Your task to perform on an android device: turn notification dots on Image 0: 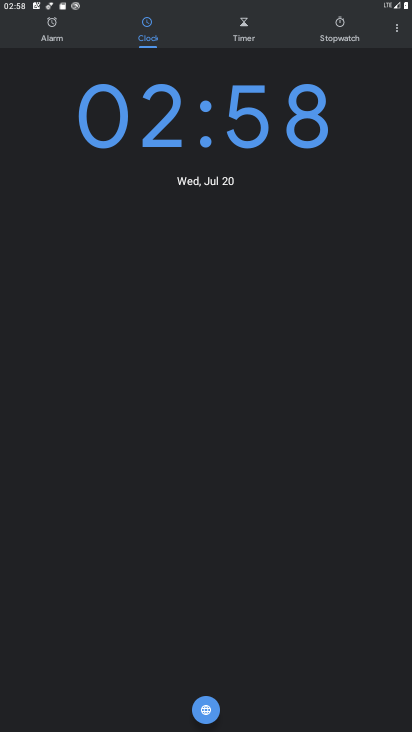
Step 0: press home button
Your task to perform on an android device: turn notification dots on Image 1: 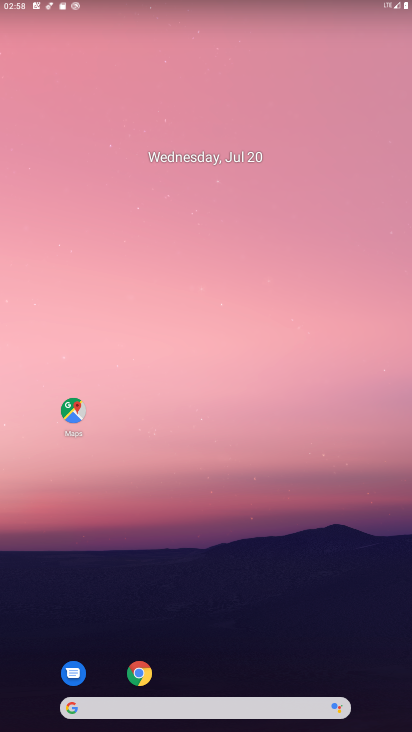
Step 1: drag from (228, 617) to (123, 1)
Your task to perform on an android device: turn notification dots on Image 2: 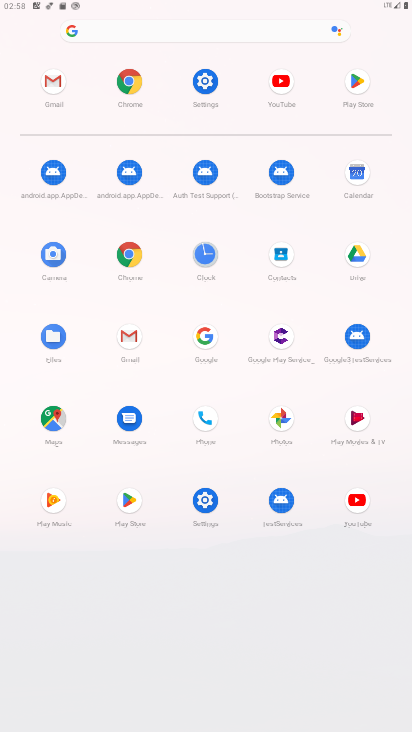
Step 2: click (203, 505)
Your task to perform on an android device: turn notification dots on Image 3: 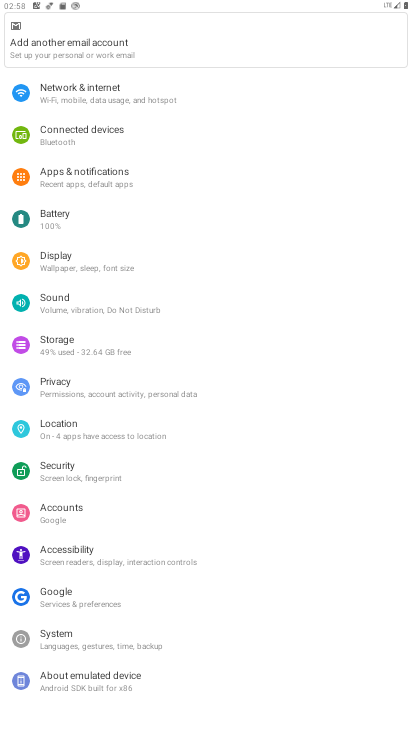
Step 3: click (128, 171)
Your task to perform on an android device: turn notification dots on Image 4: 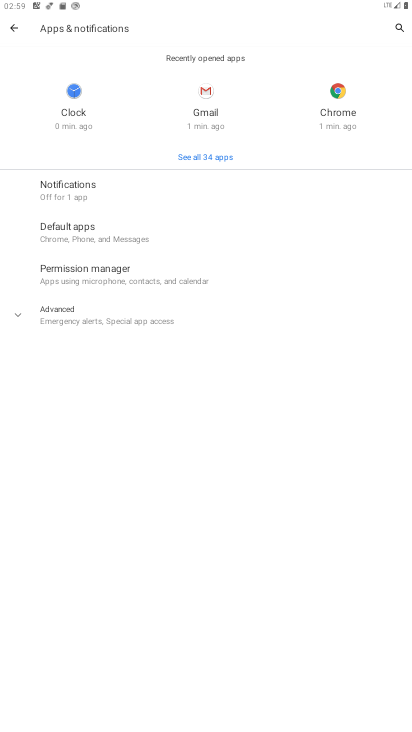
Step 4: click (78, 199)
Your task to perform on an android device: turn notification dots on Image 5: 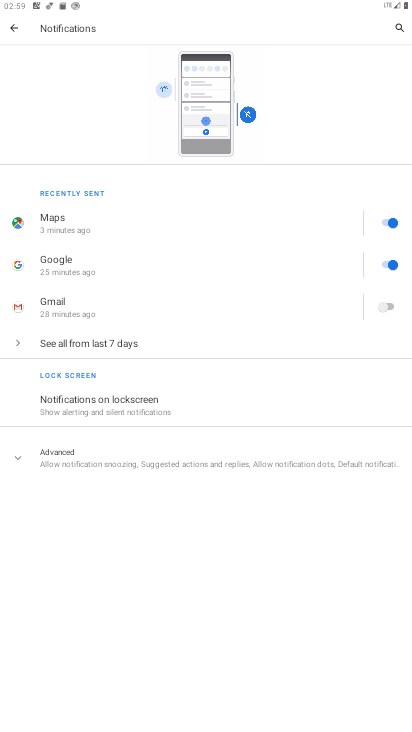
Step 5: click (75, 461)
Your task to perform on an android device: turn notification dots on Image 6: 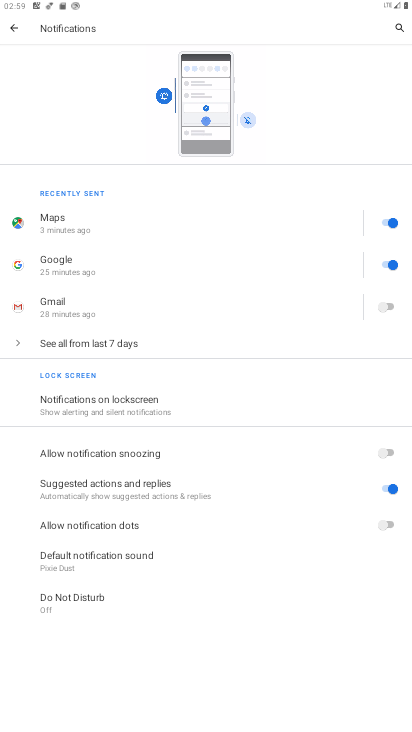
Step 6: click (385, 523)
Your task to perform on an android device: turn notification dots on Image 7: 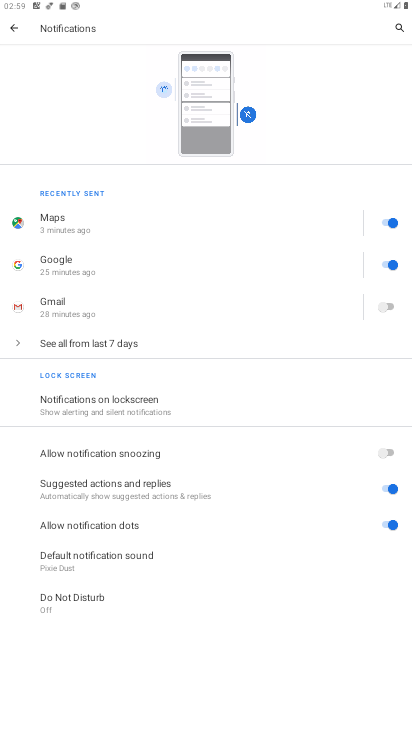
Step 7: task complete